Your task to perform on an android device: Search for the new Steph Curry shoes on Nike.com Image 0: 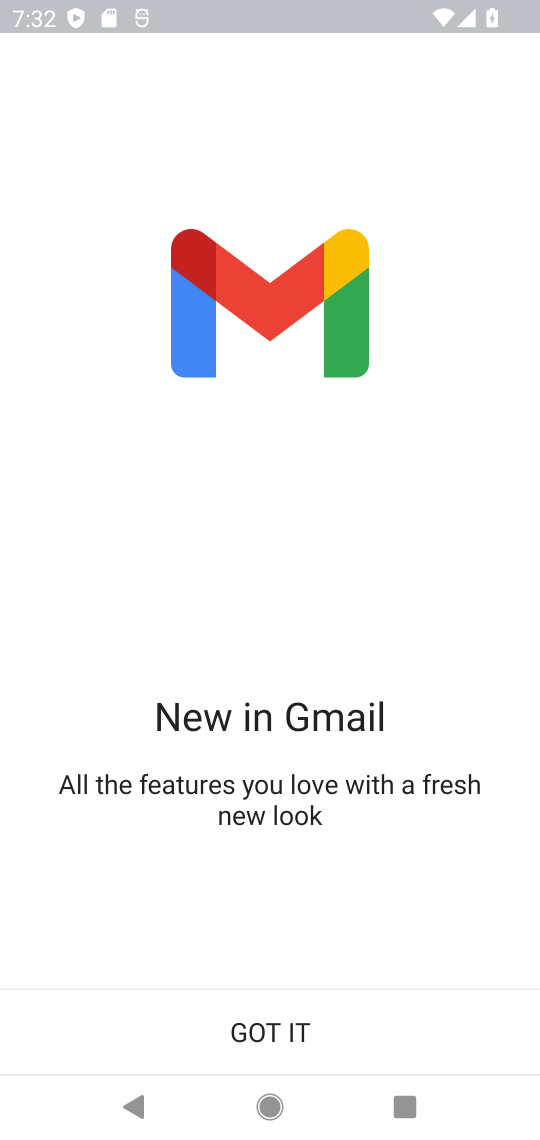
Step 0: press home button
Your task to perform on an android device: Search for the new Steph Curry shoes on Nike.com Image 1: 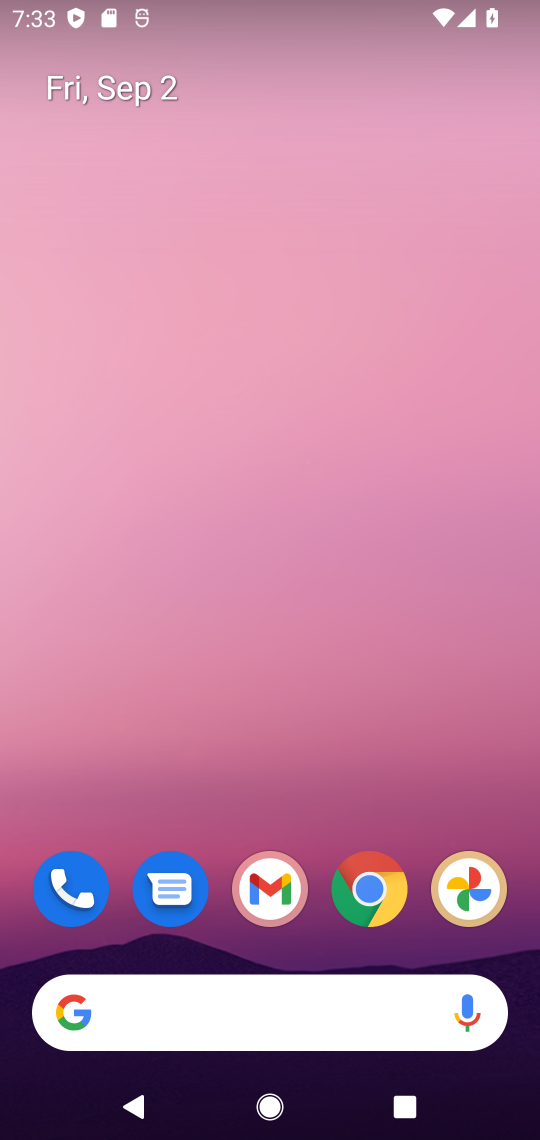
Step 1: click (299, 992)
Your task to perform on an android device: Search for the new Steph Curry shoes on Nike.com Image 2: 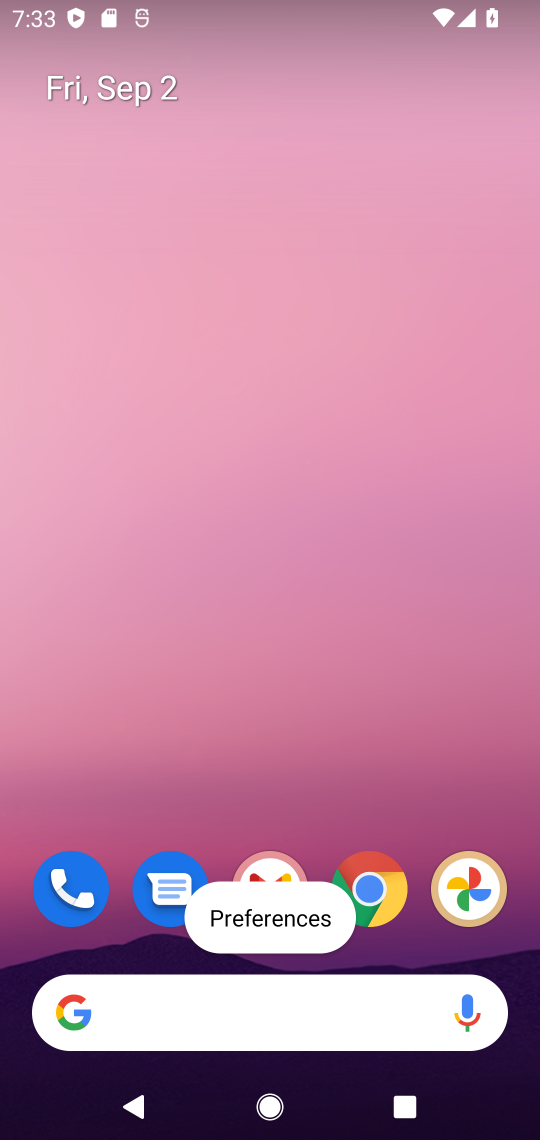
Step 2: click (229, 1017)
Your task to perform on an android device: Search for the new Steph Curry shoes on Nike.com Image 3: 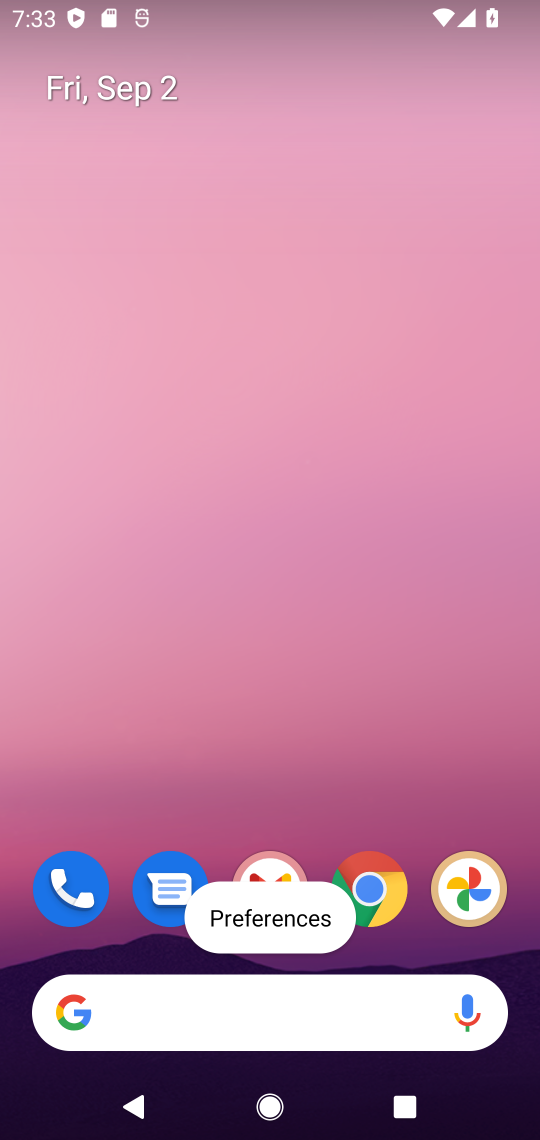
Step 3: click (196, 1009)
Your task to perform on an android device: Search for the new Steph Curry shoes on Nike.com Image 4: 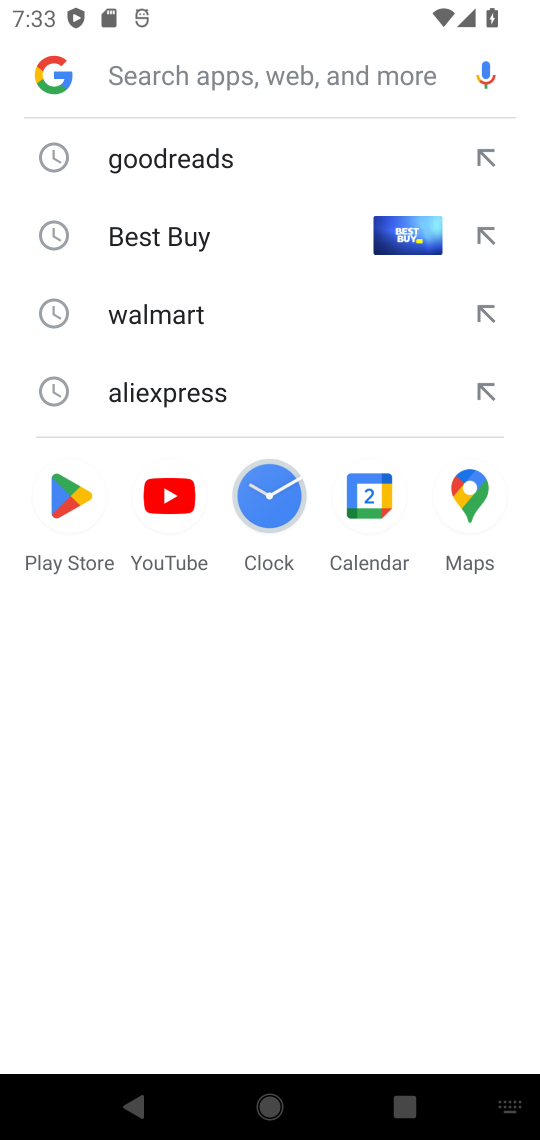
Step 4: type "Nike.com"
Your task to perform on an android device: Search for the new Steph Curry shoes on Nike.com Image 5: 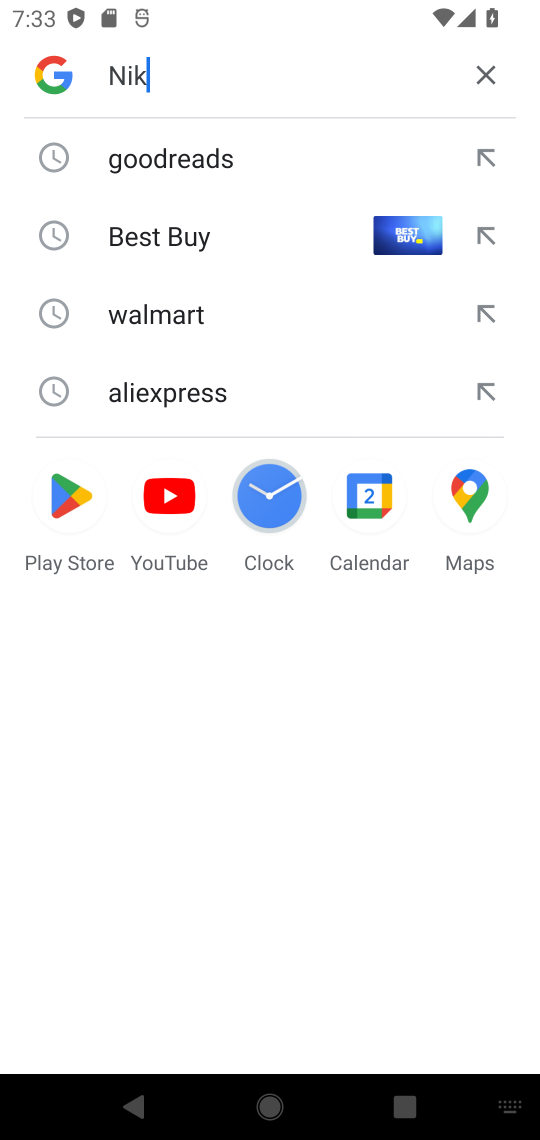
Step 5: type ""
Your task to perform on an android device: Search for the new Steph Curry shoes on Nike.com Image 6: 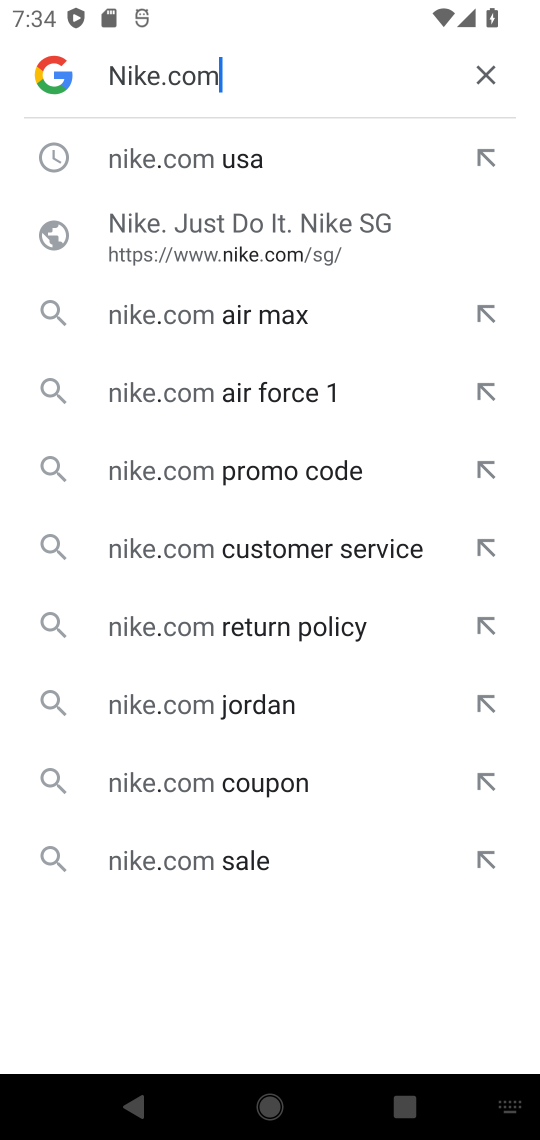
Step 6: click (249, 163)
Your task to perform on an android device: Search for the new Steph Curry shoes on Nike.com Image 7: 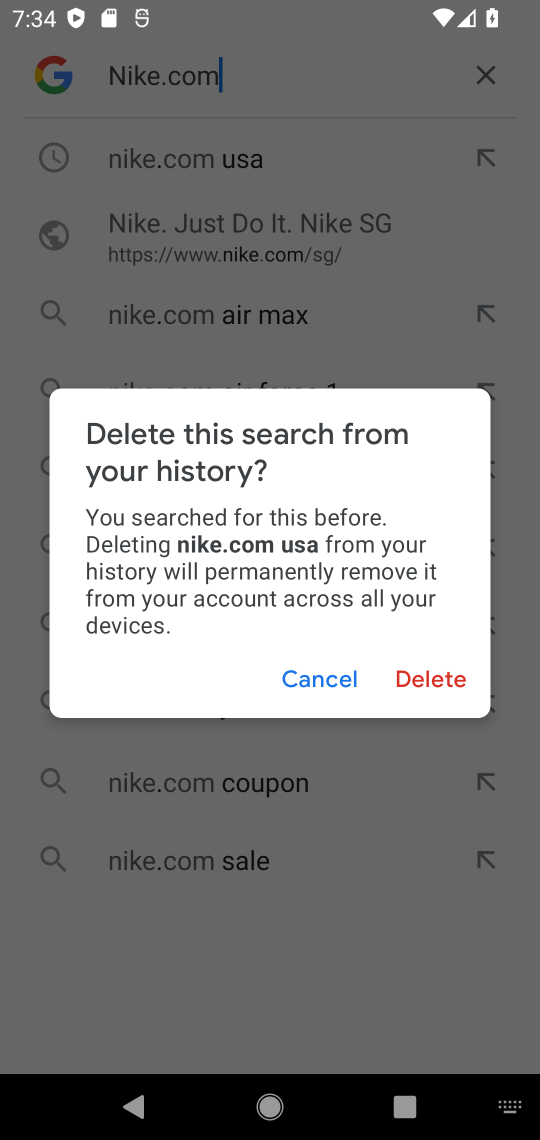
Step 7: click (311, 669)
Your task to perform on an android device: Search for the new Steph Curry shoes on Nike.com Image 8: 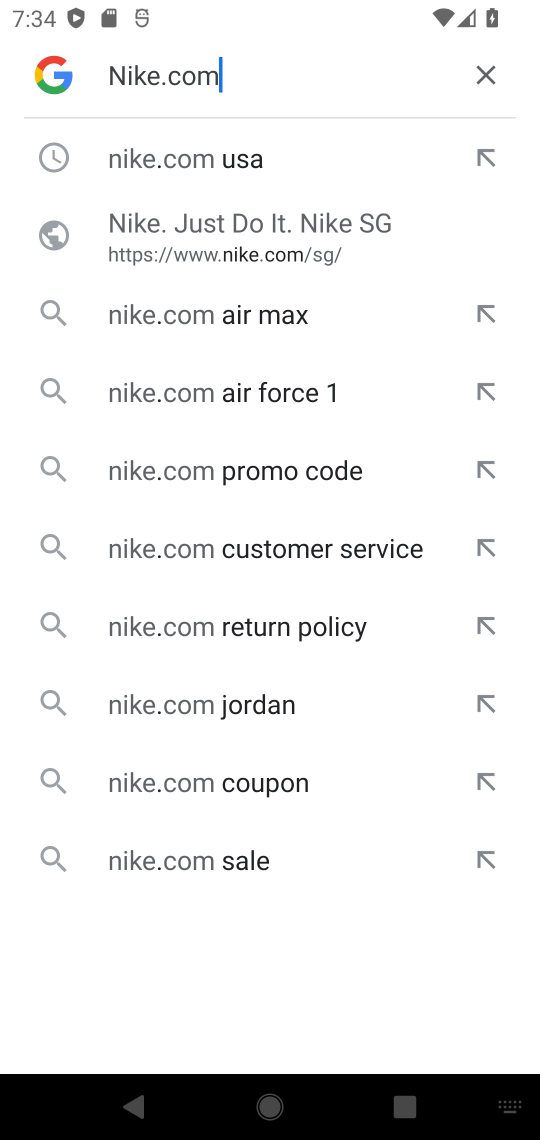
Step 8: click (298, 148)
Your task to perform on an android device: Search for the new Steph Curry shoes on Nike.com Image 9: 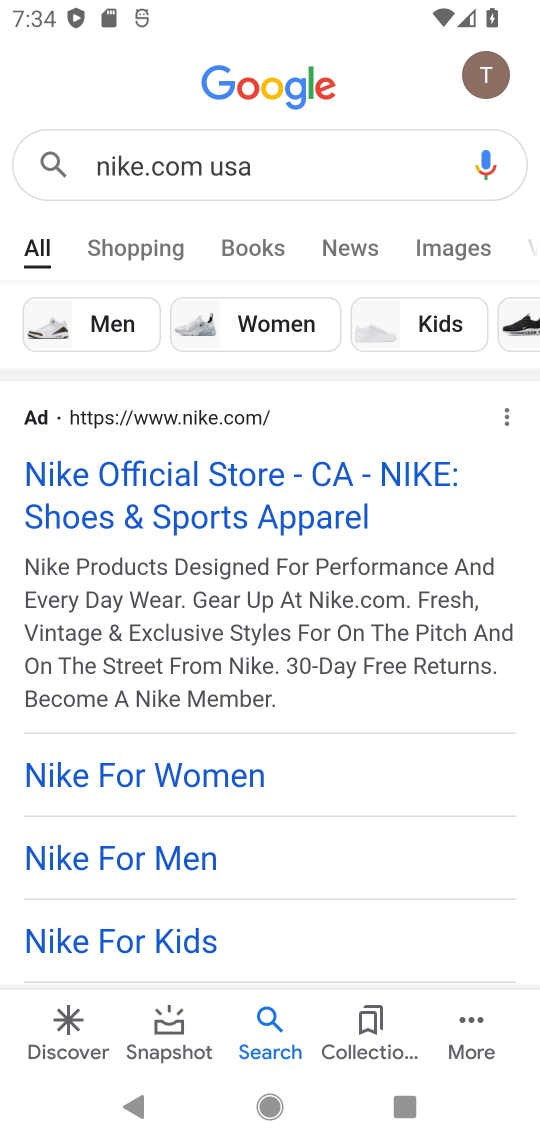
Step 9: drag from (375, 788) to (382, 442)
Your task to perform on an android device: Search for the new Steph Curry shoes on Nike.com Image 10: 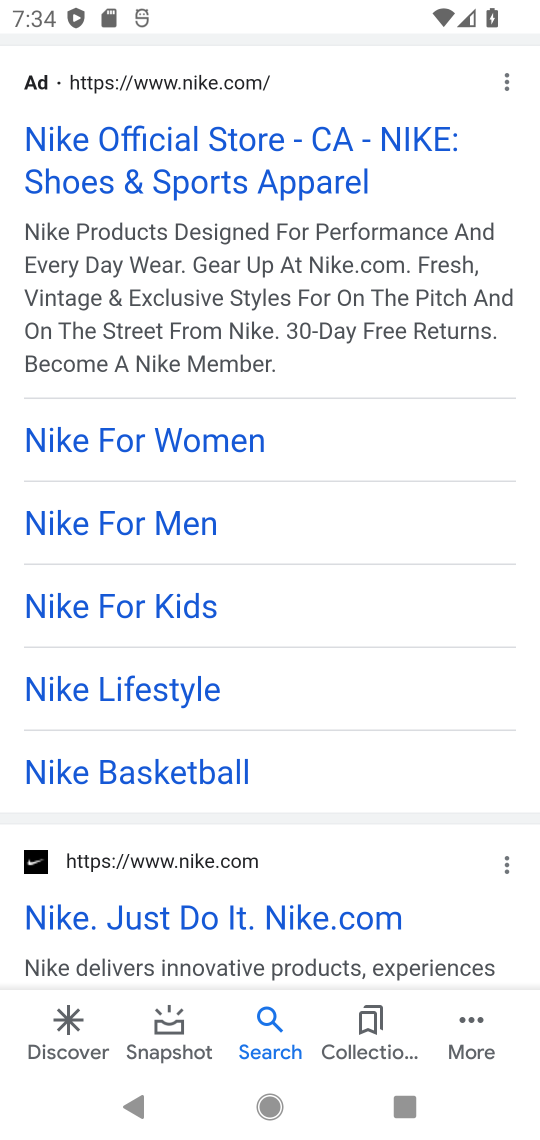
Step 10: drag from (332, 943) to (311, 617)
Your task to perform on an android device: Search for the new Steph Curry shoes on Nike.com Image 11: 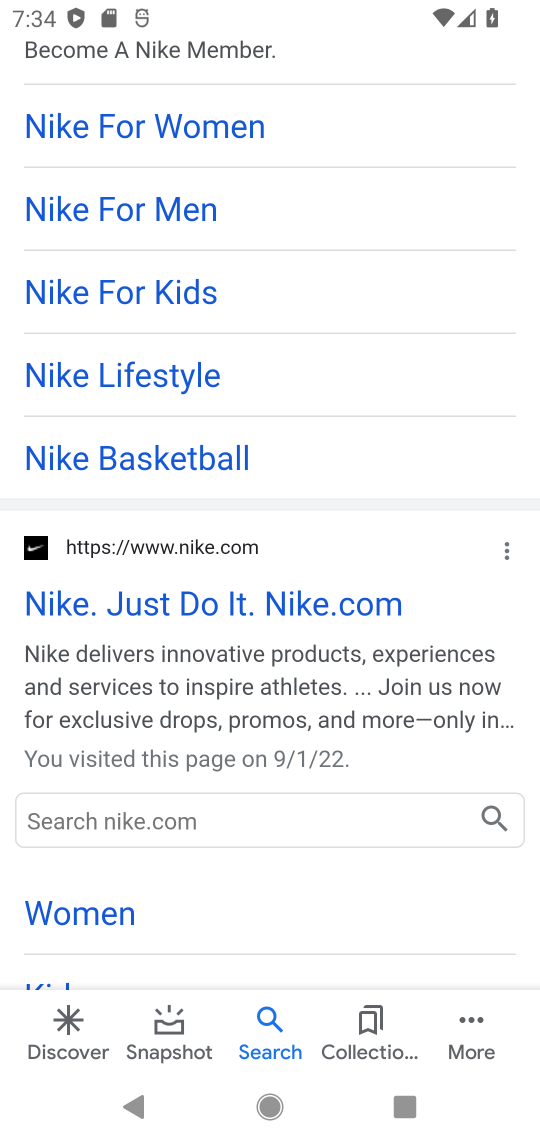
Step 11: click (328, 618)
Your task to perform on an android device: Search for the new Steph Curry shoes on Nike.com Image 12: 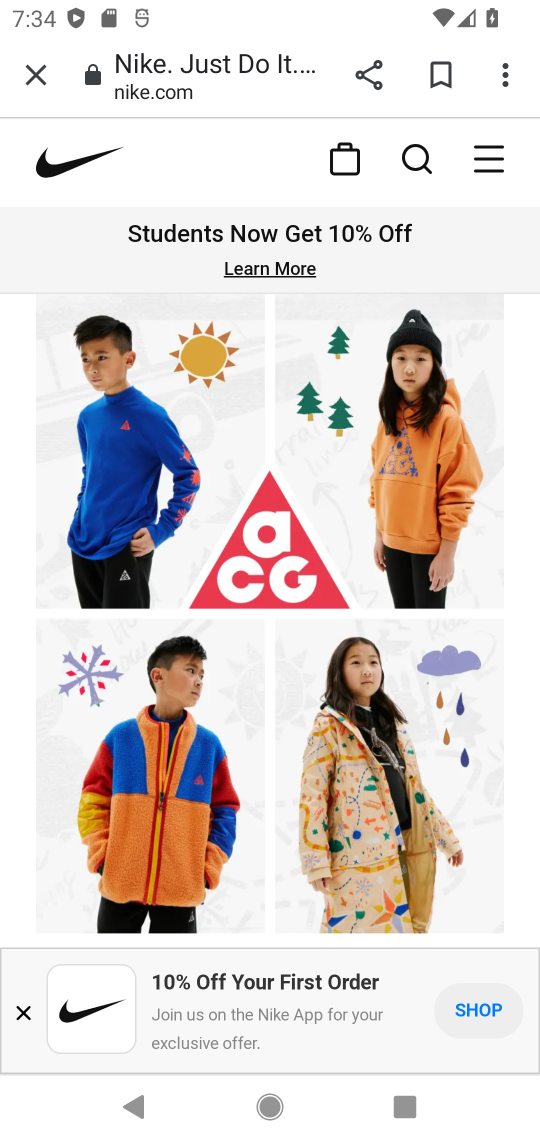
Step 12: click (430, 172)
Your task to perform on an android device: Search for the new Steph Curry shoes on Nike.com Image 13: 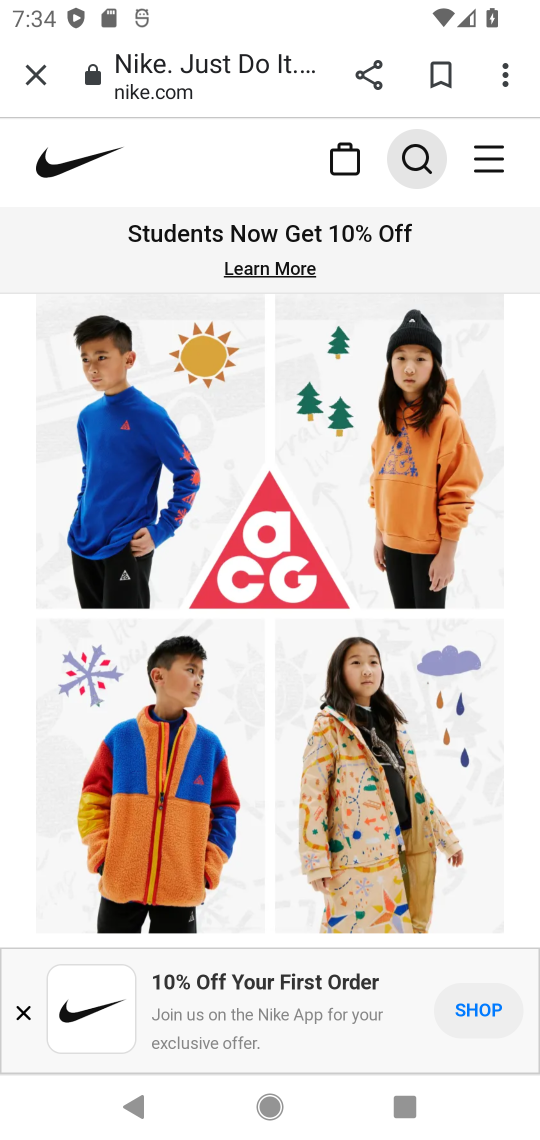
Step 13: click (424, 143)
Your task to perform on an android device: Search for the new Steph Curry shoes on Nike.com Image 14: 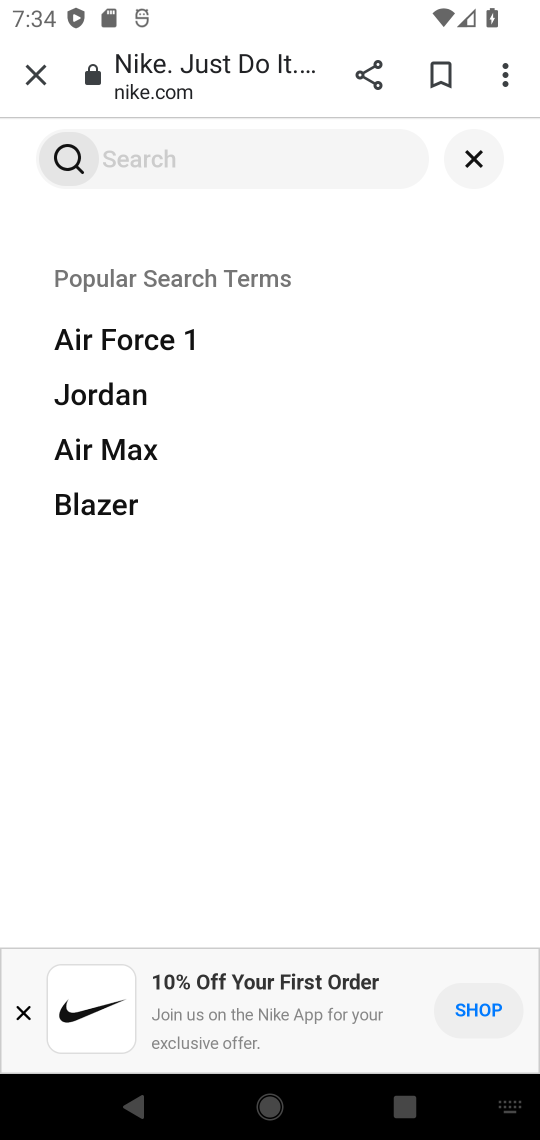
Step 14: type "Steph Curry shoes"
Your task to perform on an android device: Search for the new Steph Curry shoes on Nike.com Image 15: 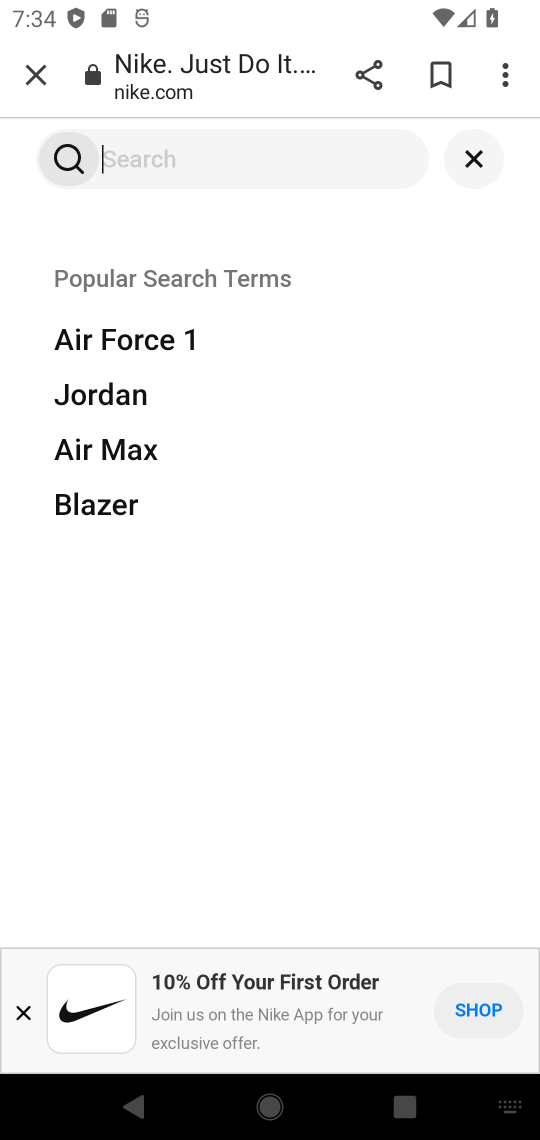
Step 15: type ""
Your task to perform on an android device: Search for the new Steph Curry shoes on Nike.com Image 16: 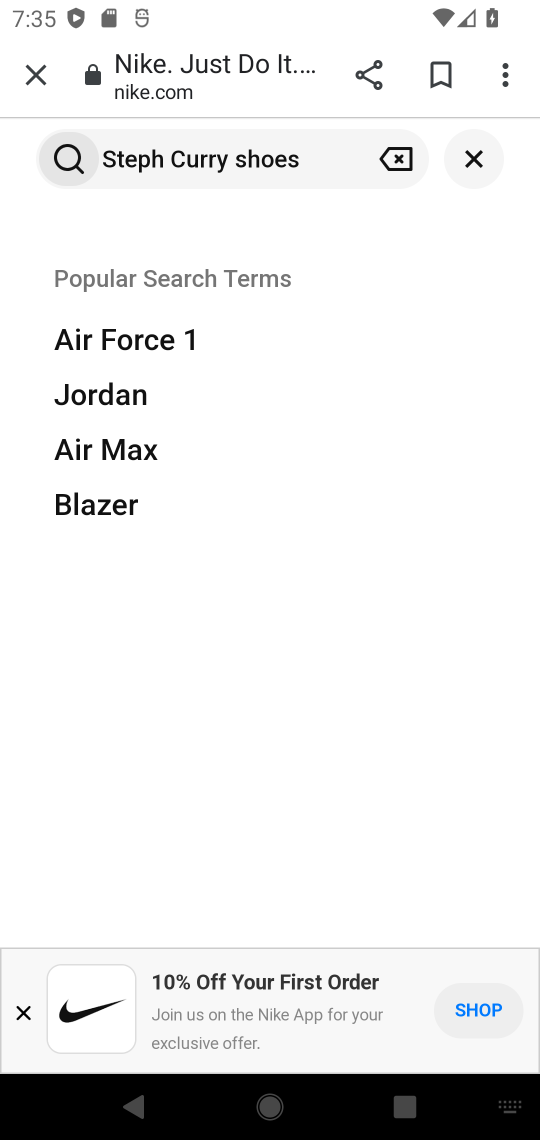
Step 16: click (79, 146)
Your task to perform on an android device: Search for the new Steph Curry shoes on Nike.com Image 17: 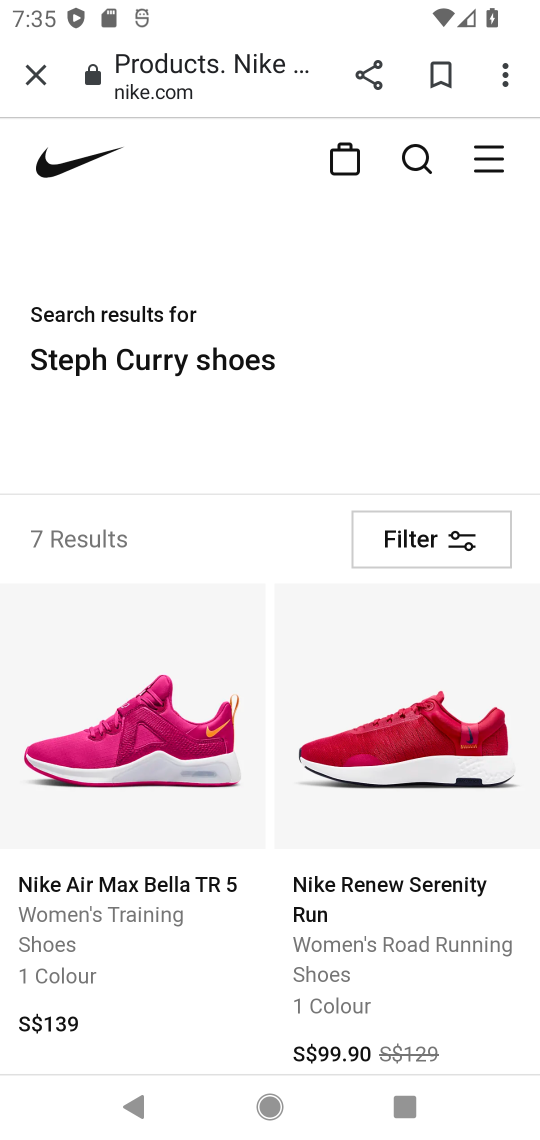
Step 17: drag from (351, 865) to (328, 288)
Your task to perform on an android device: Search for the new Steph Curry shoes on Nike.com Image 18: 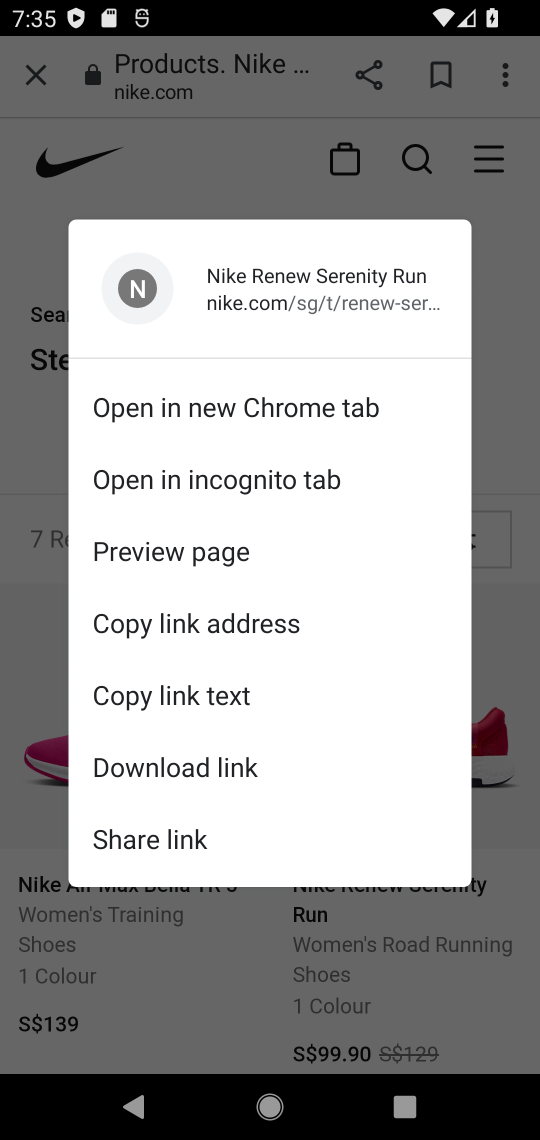
Step 18: click (514, 464)
Your task to perform on an android device: Search for the new Steph Curry shoes on Nike.com Image 19: 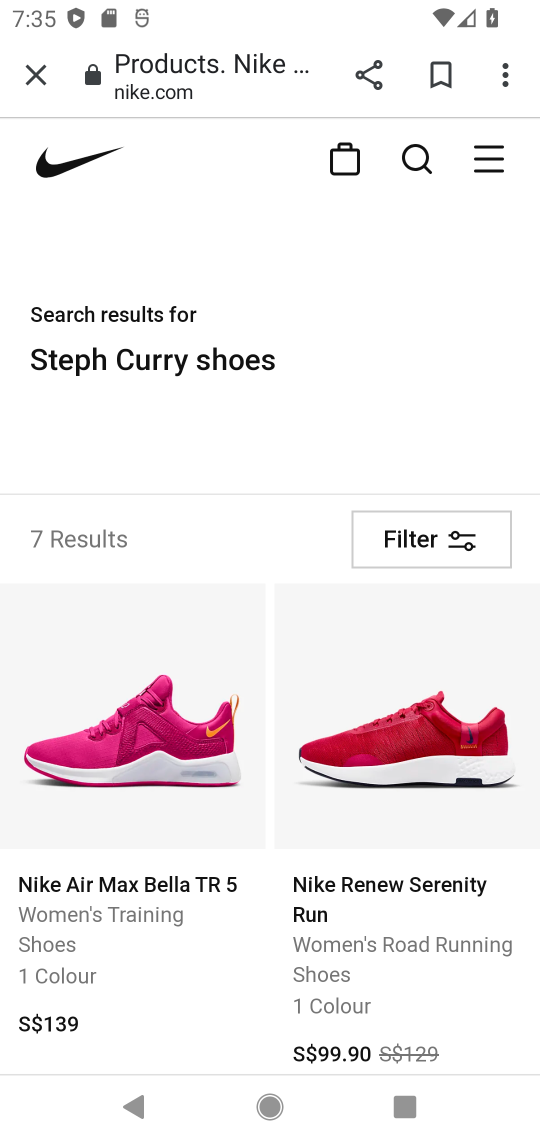
Step 19: drag from (369, 168) to (435, 309)
Your task to perform on an android device: Search for the new Steph Curry shoes on Nike.com Image 20: 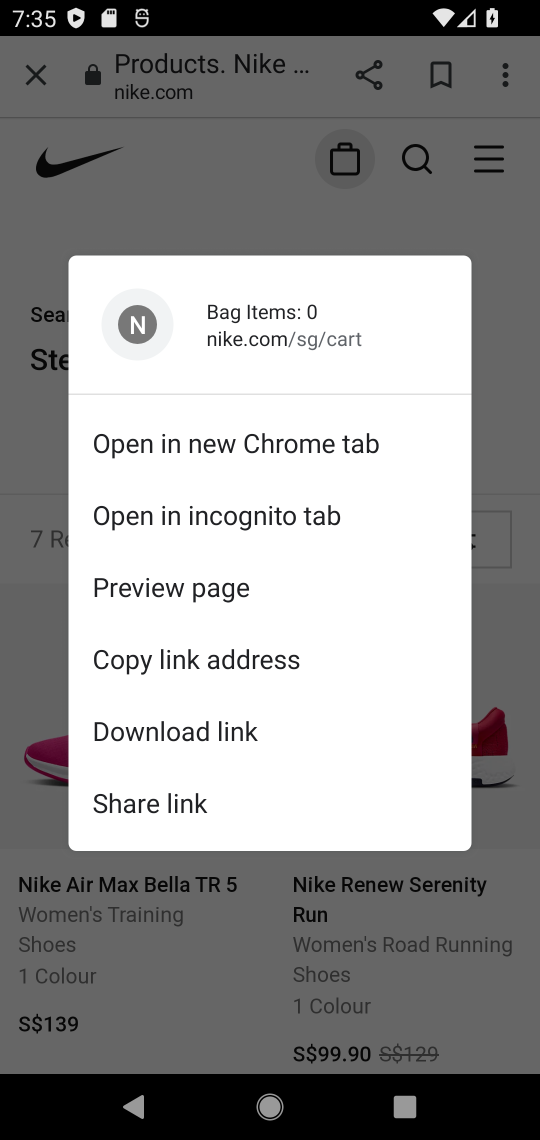
Step 20: click (503, 319)
Your task to perform on an android device: Search for the new Steph Curry shoes on Nike.com Image 21: 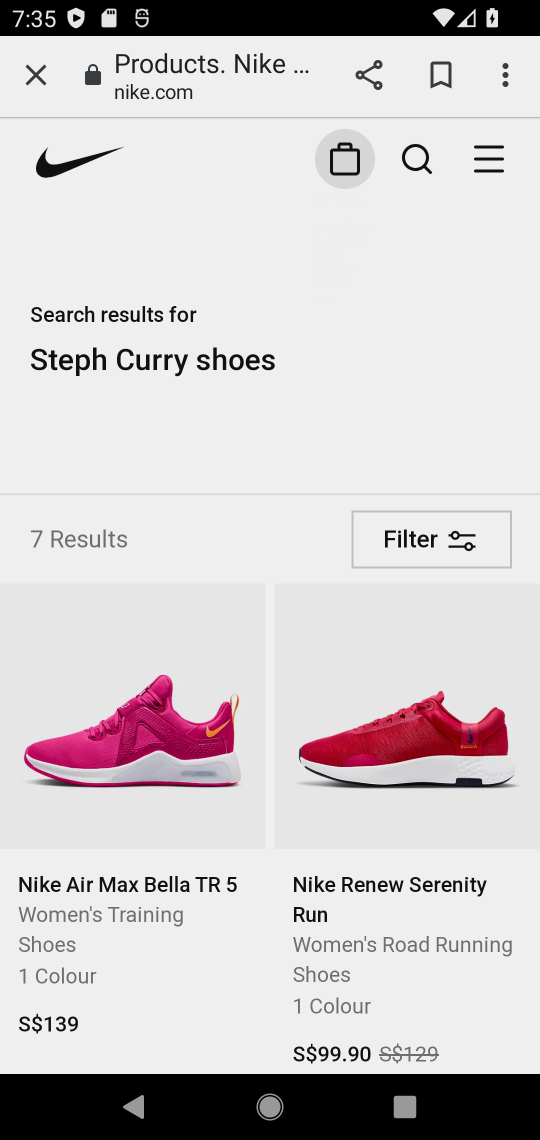
Step 21: task complete